Your task to perform on an android device: turn on bluetooth scan Image 0: 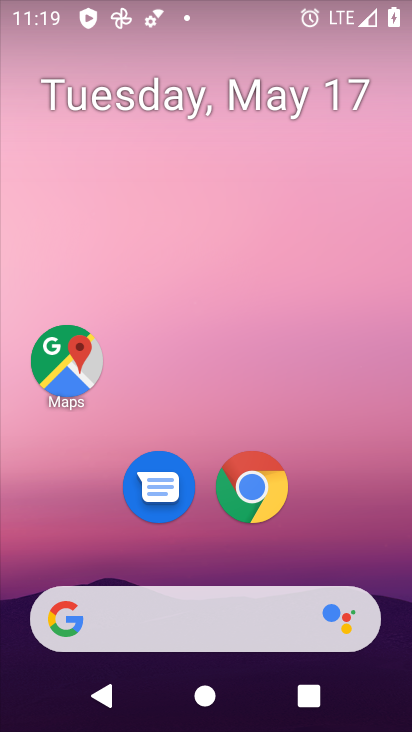
Step 0: press home button
Your task to perform on an android device: turn on bluetooth scan Image 1: 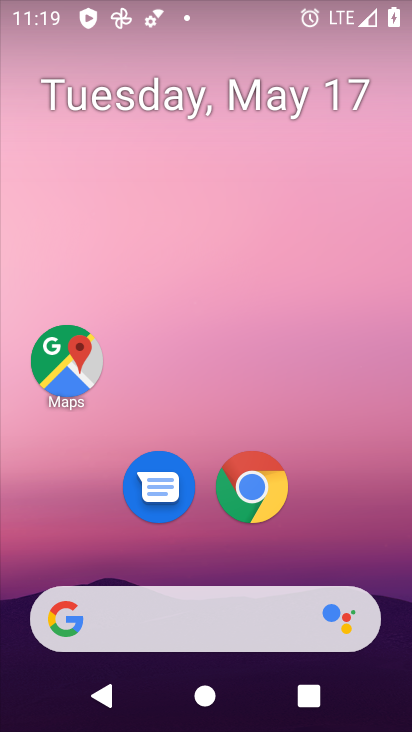
Step 1: drag from (318, 503) to (372, 173)
Your task to perform on an android device: turn on bluetooth scan Image 2: 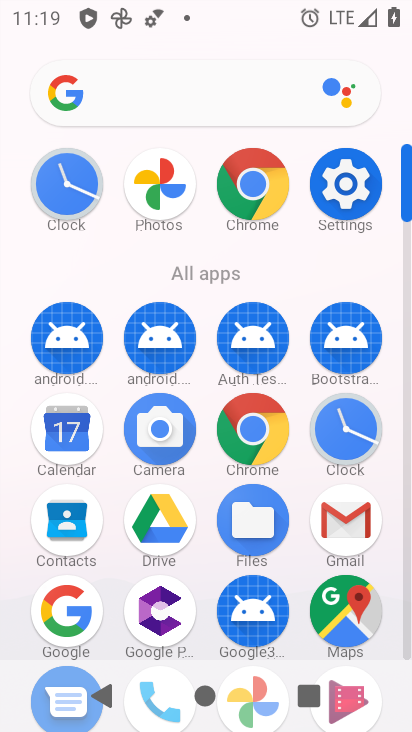
Step 2: click (329, 203)
Your task to perform on an android device: turn on bluetooth scan Image 3: 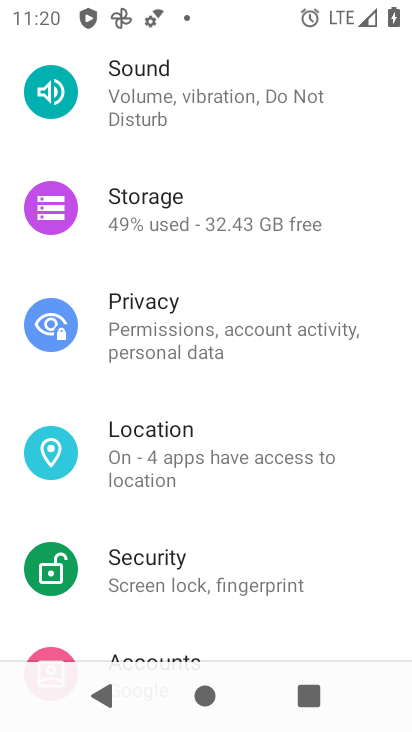
Step 3: click (222, 450)
Your task to perform on an android device: turn on bluetooth scan Image 4: 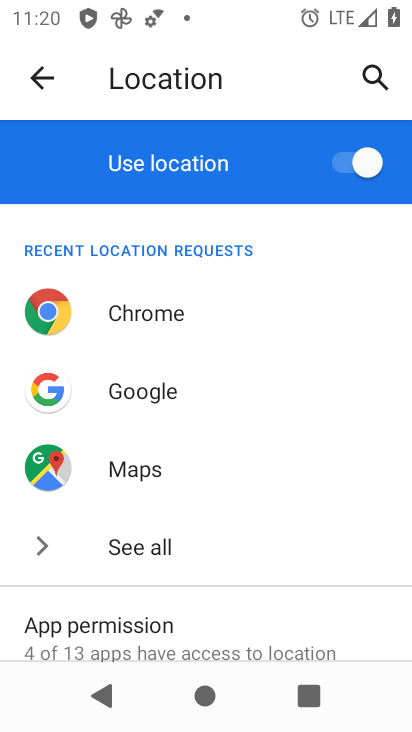
Step 4: drag from (222, 450) to (246, 205)
Your task to perform on an android device: turn on bluetooth scan Image 5: 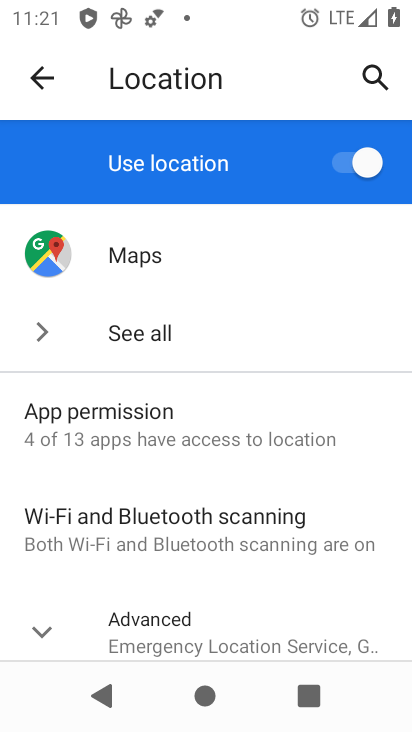
Step 5: drag from (310, 569) to (345, 399)
Your task to perform on an android device: turn on bluetooth scan Image 6: 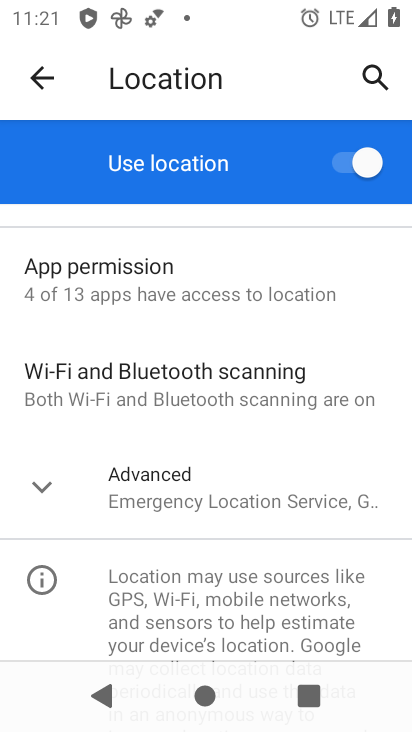
Step 6: click (125, 395)
Your task to perform on an android device: turn on bluetooth scan Image 7: 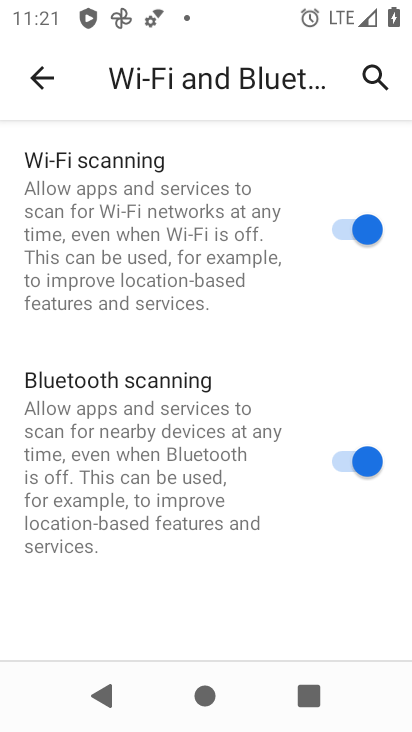
Step 7: task complete